Your task to perform on an android device: Search for seafood restaurants on Google Maps Image 0: 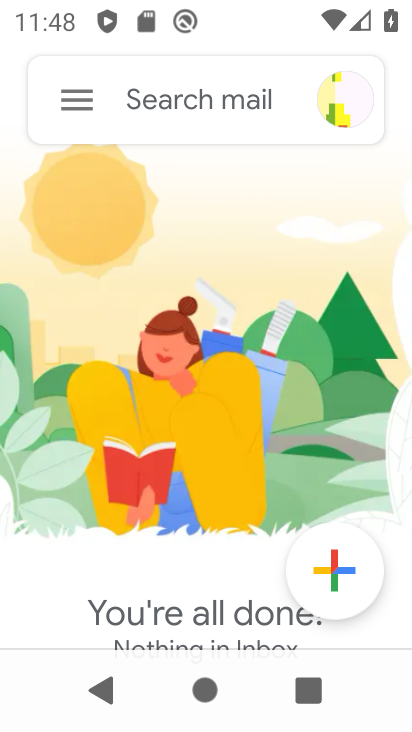
Step 0: press home button
Your task to perform on an android device: Search for seafood restaurants on Google Maps Image 1: 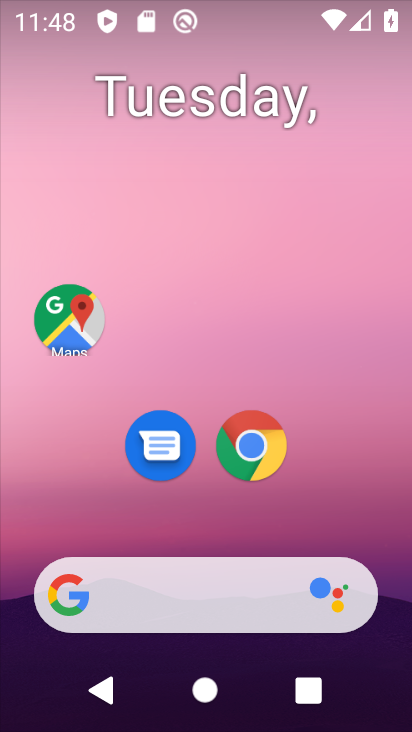
Step 1: drag from (322, 185) to (300, 0)
Your task to perform on an android device: Search for seafood restaurants on Google Maps Image 2: 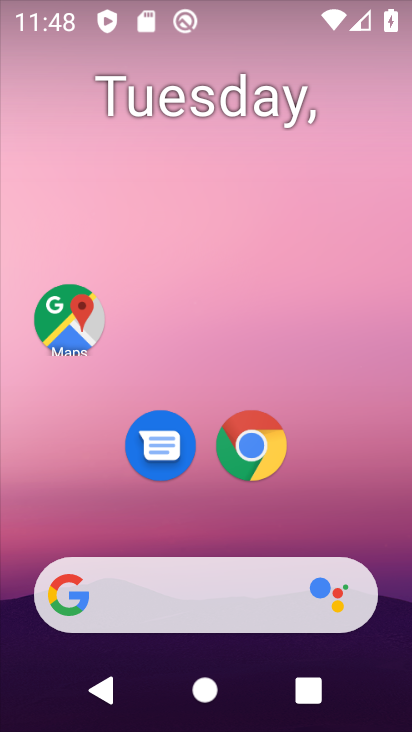
Step 2: drag from (343, 545) to (347, 73)
Your task to perform on an android device: Search for seafood restaurants on Google Maps Image 3: 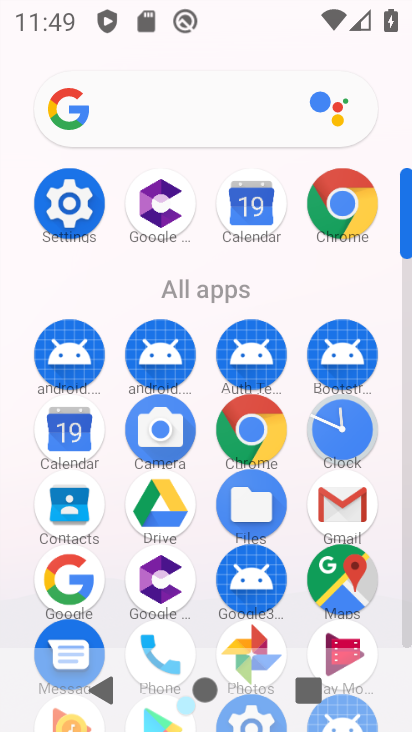
Step 3: click (344, 580)
Your task to perform on an android device: Search for seafood restaurants on Google Maps Image 4: 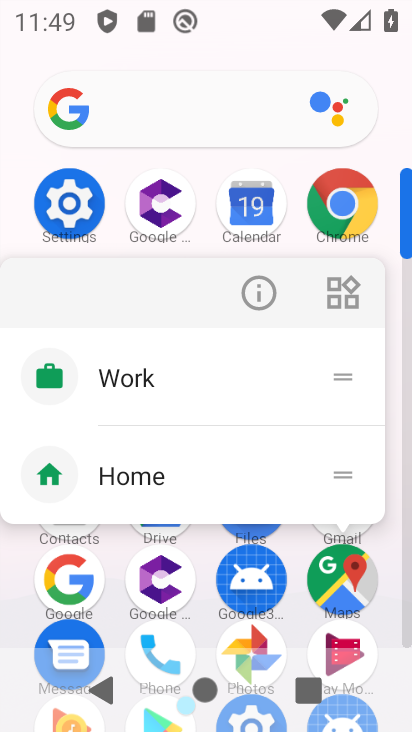
Step 4: click (341, 587)
Your task to perform on an android device: Search for seafood restaurants on Google Maps Image 5: 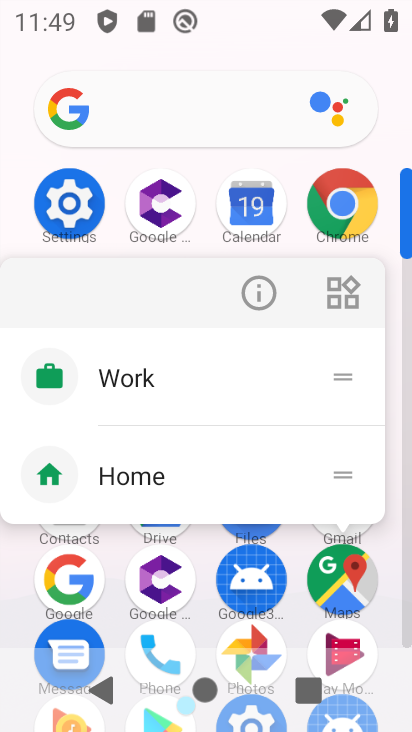
Step 5: click (341, 587)
Your task to perform on an android device: Search for seafood restaurants on Google Maps Image 6: 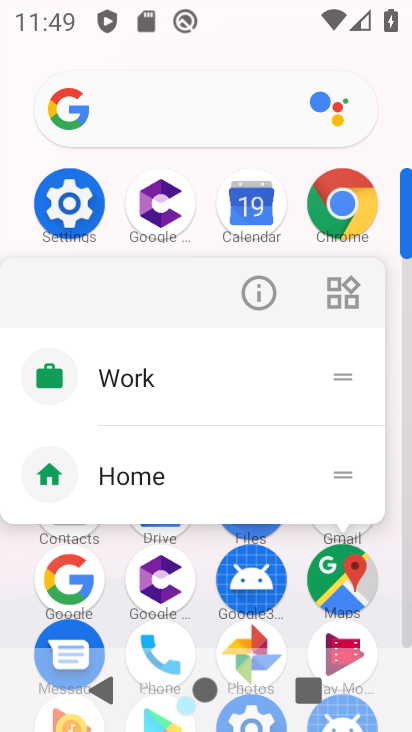
Step 6: click (341, 580)
Your task to perform on an android device: Search for seafood restaurants on Google Maps Image 7: 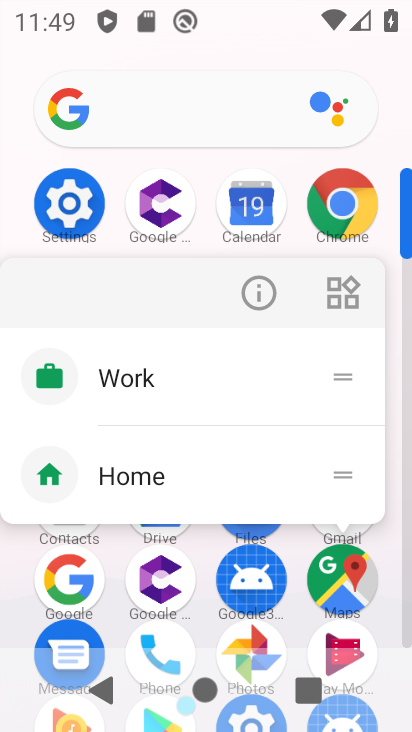
Step 7: click (341, 577)
Your task to perform on an android device: Search for seafood restaurants on Google Maps Image 8: 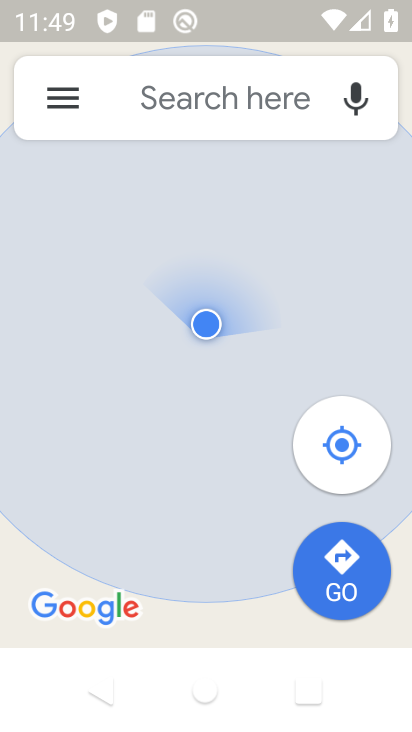
Step 8: click (245, 92)
Your task to perform on an android device: Search for seafood restaurants on Google Maps Image 9: 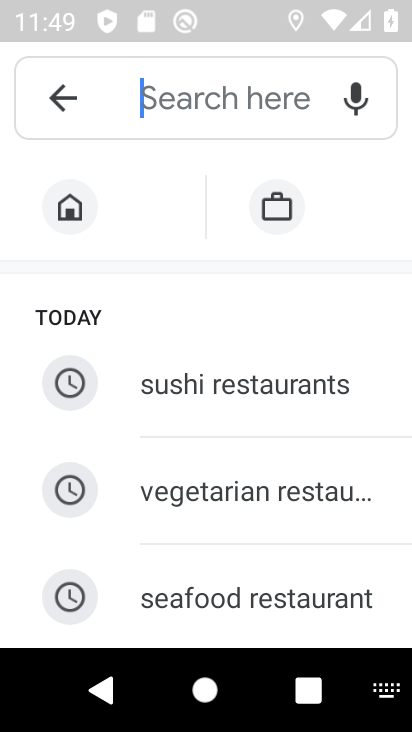
Step 9: type "seafood restaurants"
Your task to perform on an android device: Search for seafood restaurants on Google Maps Image 10: 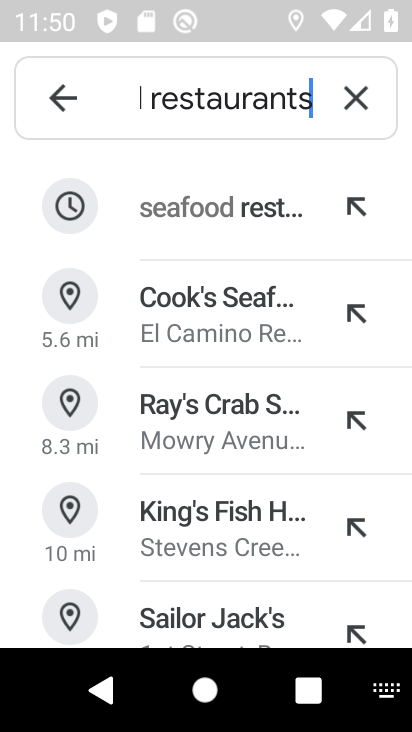
Step 10: press enter
Your task to perform on an android device: Search for seafood restaurants on Google Maps Image 11: 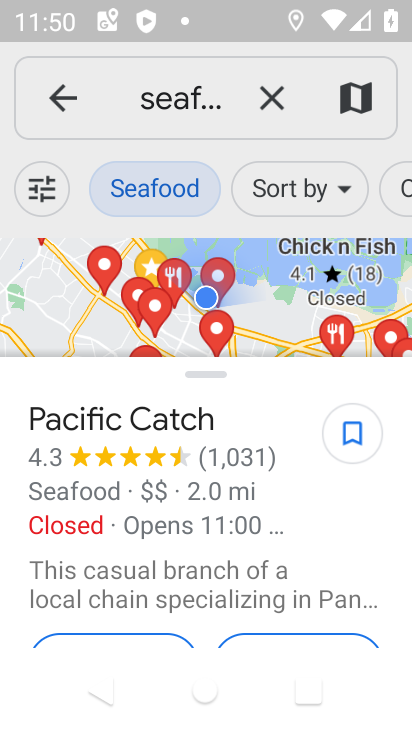
Step 11: task complete